Your task to perform on an android device: turn on improve location accuracy Image 0: 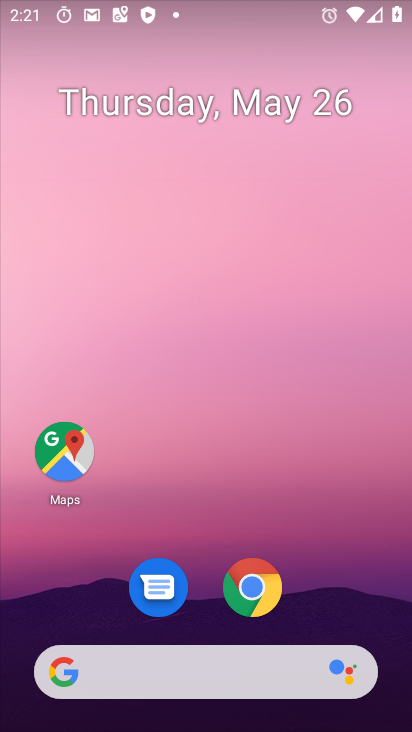
Step 0: drag from (208, 654) to (293, 167)
Your task to perform on an android device: turn on improve location accuracy Image 1: 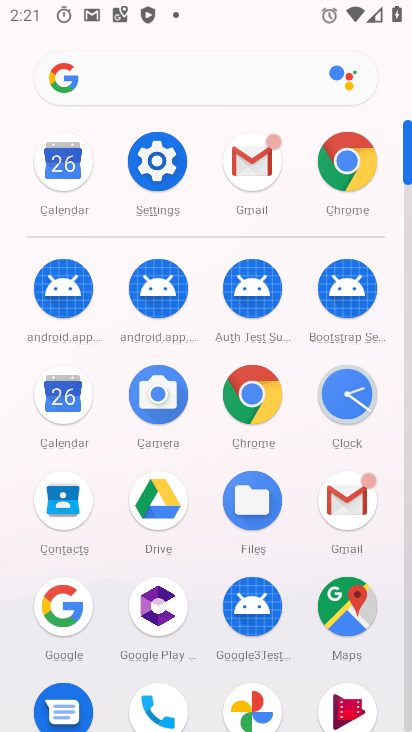
Step 1: click (153, 164)
Your task to perform on an android device: turn on improve location accuracy Image 2: 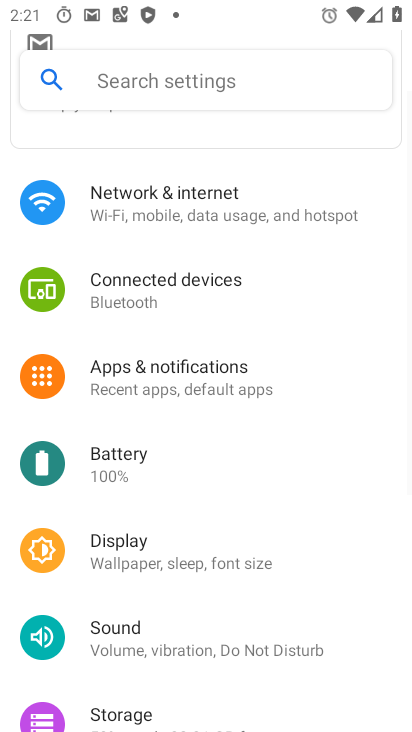
Step 2: click (140, 72)
Your task to perform on an android device: turn on improve location accuracy Image 3: 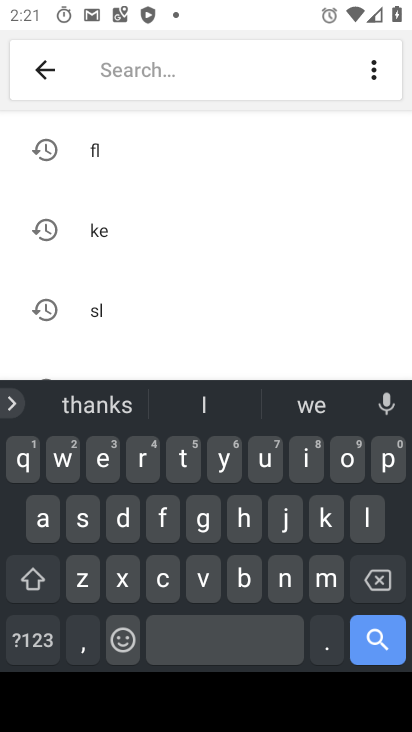
Step 3: click (373, 516)
Your task to perform on an android device: turn on improve location accuracy Image 4: 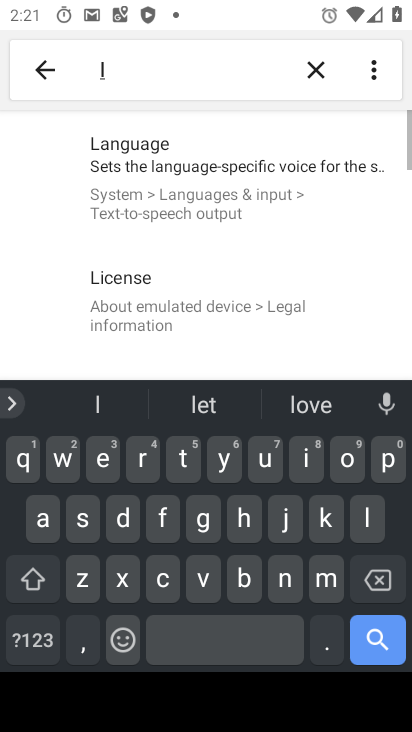
Step 4: click (342, 461)
Your task to perform on an android device: turn on improve location accuracy Image 5: 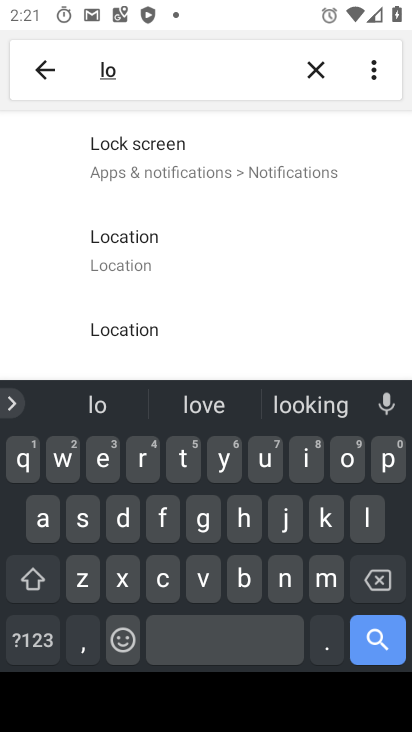
Step 5: click (148, 246)
Your task to perform on an android device: turn on improve location accuracy Image 6: 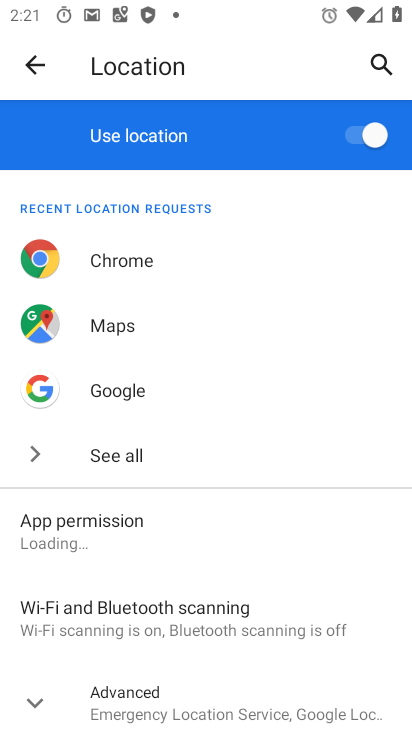
Step 6: click (44, 696)
Your task to perform on an android device: turn on improve location accuracy Image 7: 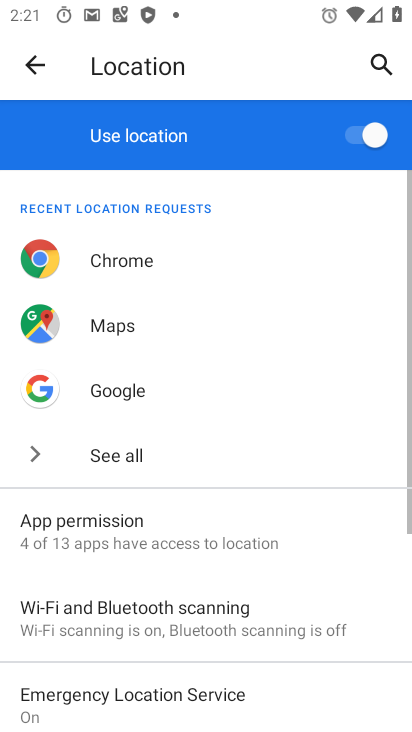
Step 7: drag from (152, 624) to (212, 363)
Your task to perform on an android device: turn on improve location accuracy Image 8: 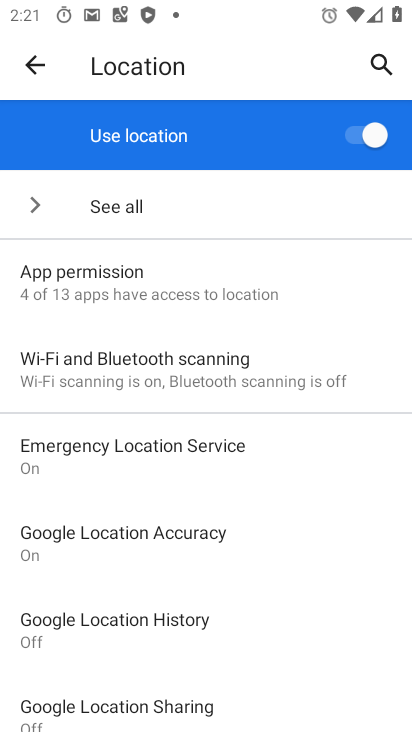
Step 8: click (167, 524)
Your task to perform on an android device: turn on improve location accuracy Image 9: 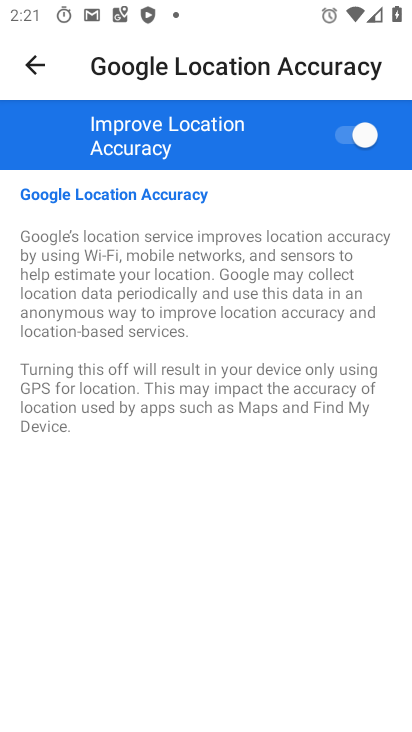
Step 9: drag from (197, 603) to (256, 424)
Your task to perform on an android device: turn on improve location accuracy Image 10: 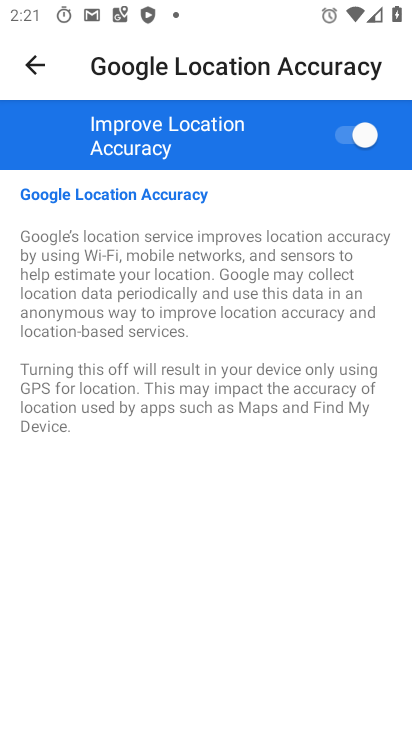
Step 10: click (362, 151)
Your task to perform on an android device: turn on improve location accuracy Image 11: 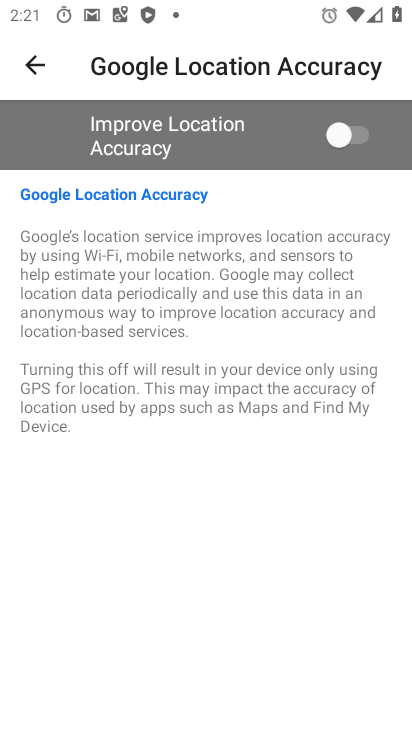
Step 11: click (365, 136)
Your task to perform on an android device: turn on improve location accuracy Image 12: 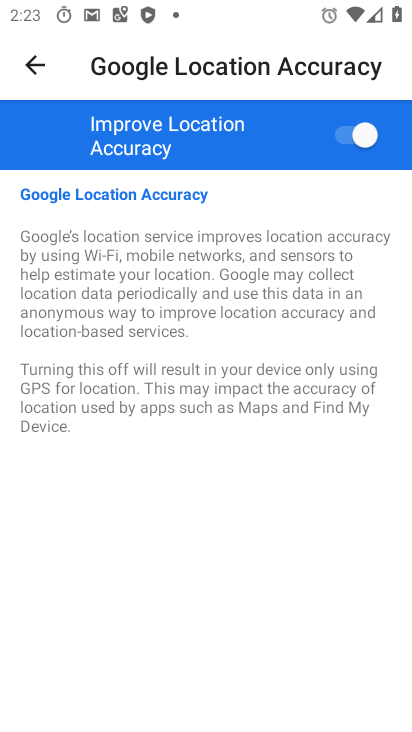
Step 12: task complete